Your task to perform on an android device: change the upload size in google photos Image 0: 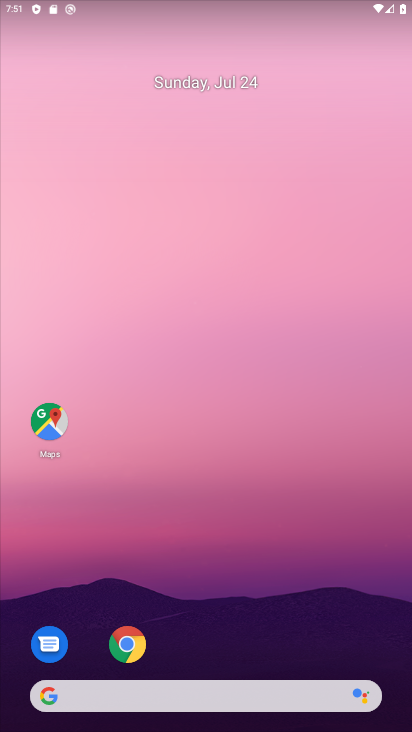
Step 0: drag from (292, 625) to (301, 84)
Your task to perform on an android device: change the upload size in google photos Image 1: 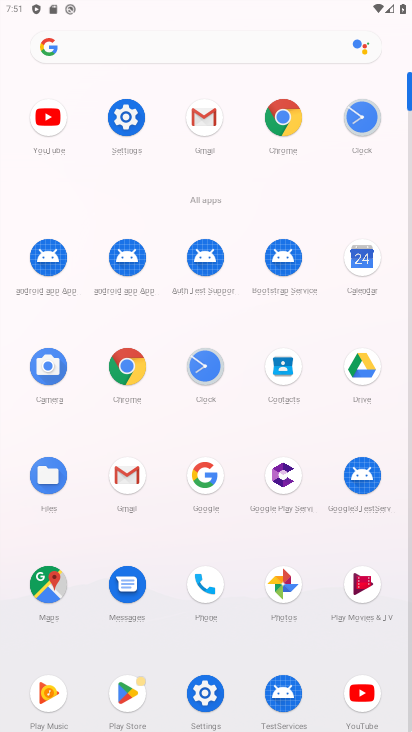
Step 1: click (289, 595)
Your task to perform on an android device: change the upload size in google photos Image 2: 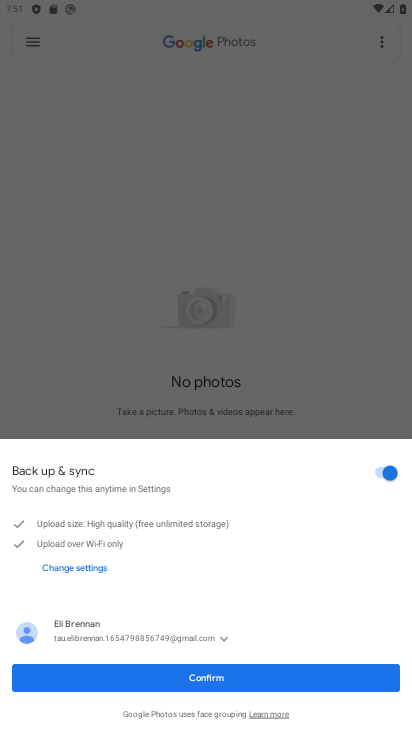
Step 2: click (266, 667)
Your task to perform on an android device: change the upload size in google photos Image 3: 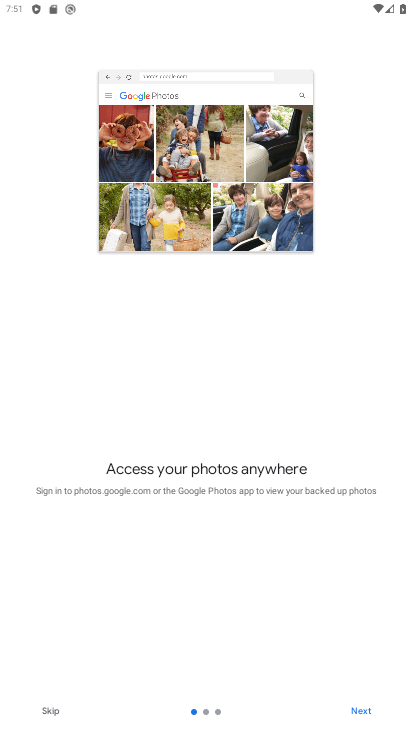
Step 3: click (356, 714)
Your task to perform on an android device: change the upload size in google photos Image 4: 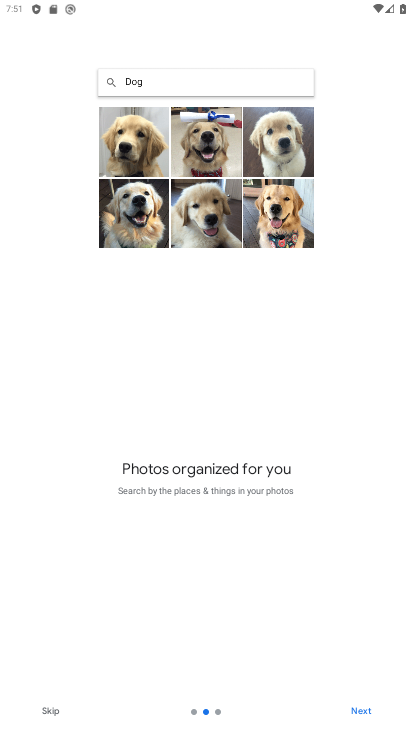
Step 4: click (360, 718)
Your task to perform on an android device: change the upload size in google photos Image 5: 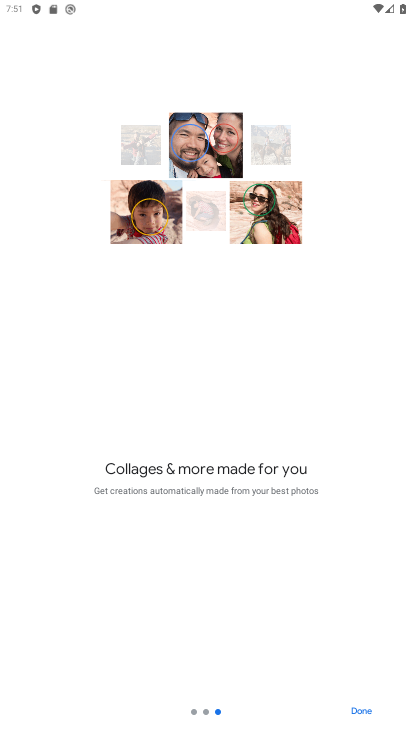
Step 5: click (369, 712)
Your task to perform on an android device: change the upload size in google photos Image 6: 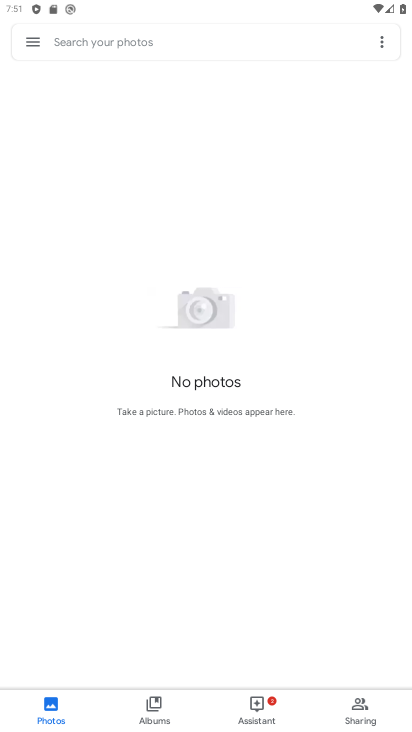
Step 6: click (28, 39)
Your task to perform on an android device: change the upload size in google photos Image 7: 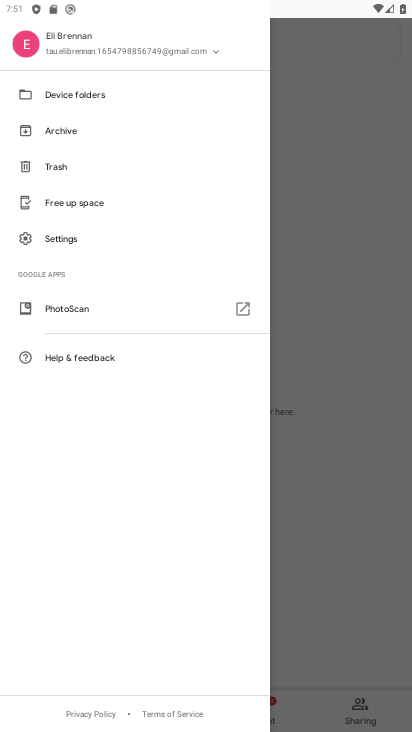
Step 7: click (54, 242)
Your task to perform on an android device: change the upload size in google photos Image 8: 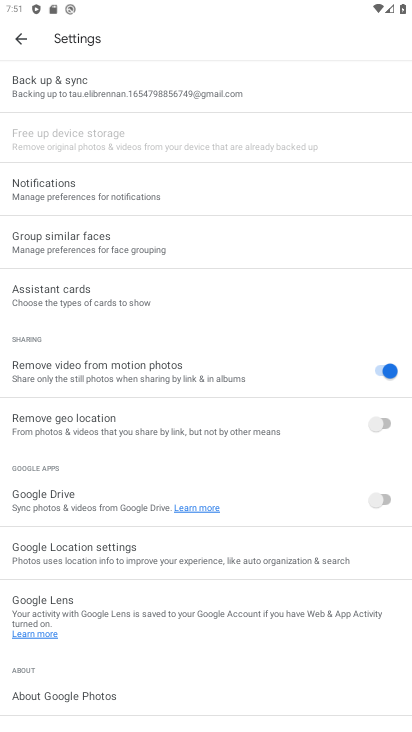
Step 8: click (90, 87)
Your task to perform on an android device: change the upload size in google photos Image 9: 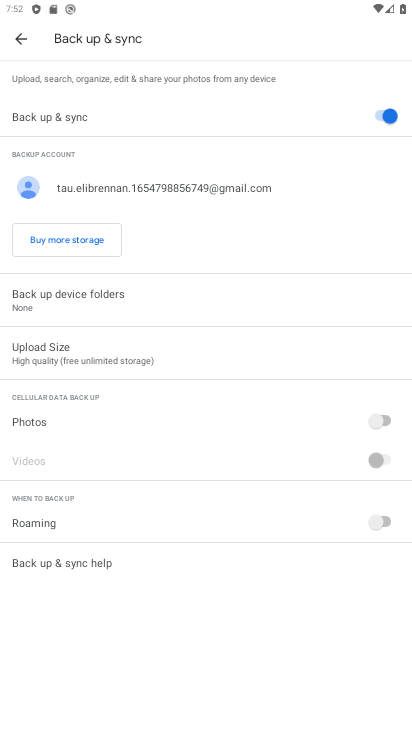
Step 9: click (91, 353)
Your task to perform on an android device: change the upload size in google photos Image 10: 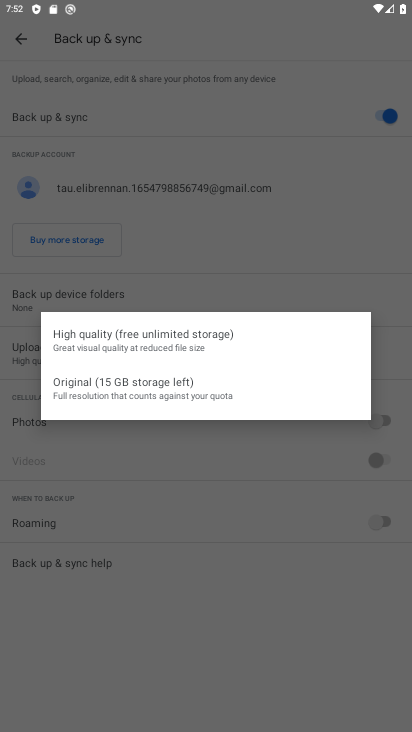
Step 10: click (93, 390)
Your task to perform on an android device: change the upload size in google photos Image 11: 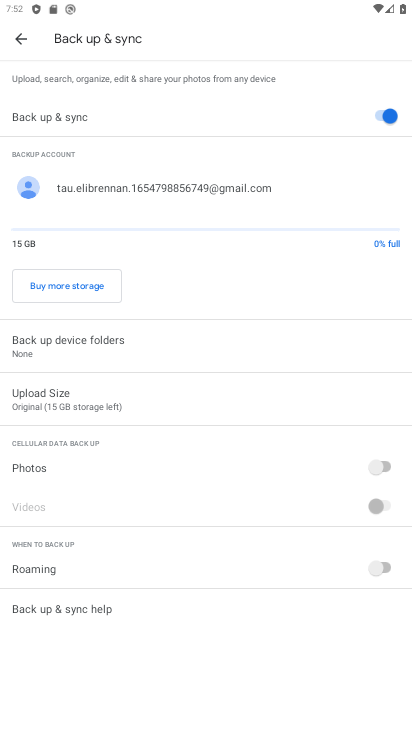
Step 11: task complete